Your task to perform on an android device: Go to Yahoo.com Image 0: 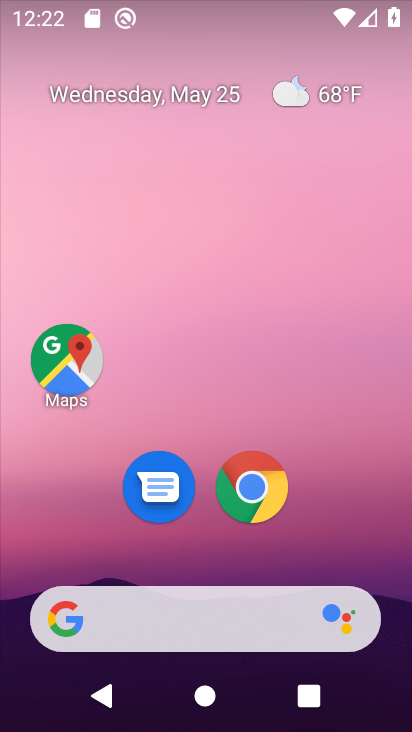
Step 0: click (250, 490)
Your task to perform on an android device: Go to Yahoo.com Image 1: 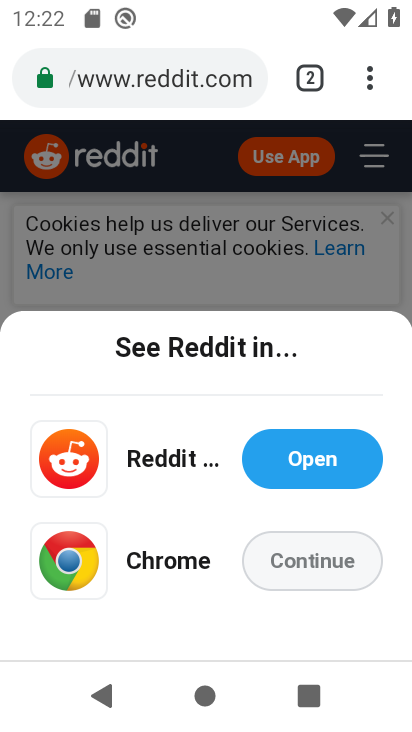
Step 1: click (302, 84)
Your task to perform on an android device: Go to Yahoo.com Image 2: 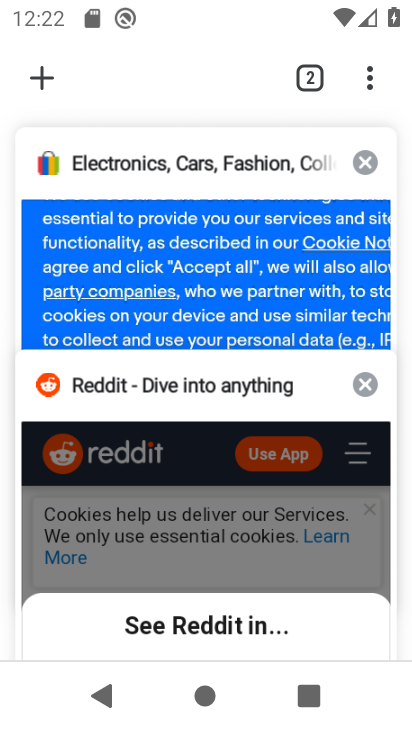
Step 2: click (34, 77)
Your task to perform on an android device: Go to Yahoo.com Image 3: 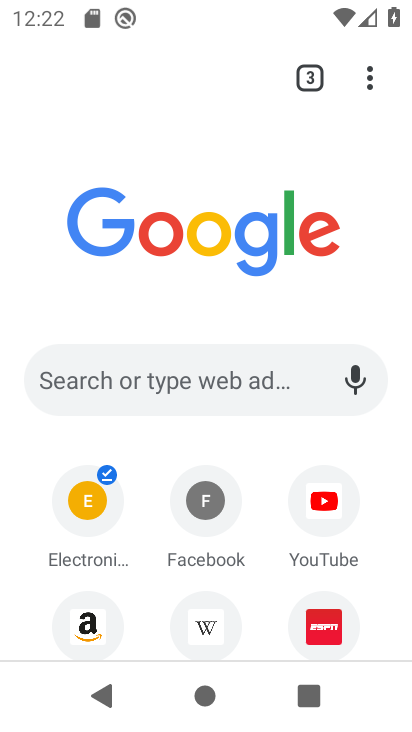
Step 3: drag from (173, 579) to (262, 218)
Your task to perform on an android device: Go to Yahoo.com Image 4: 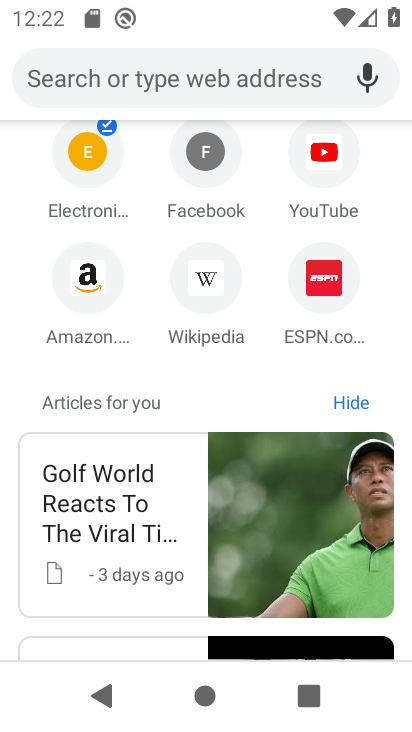
Step 4: drag from (250, 309) to (248, 545)
Your task to perform on an android device: Go to Yahoo.com Image 5: 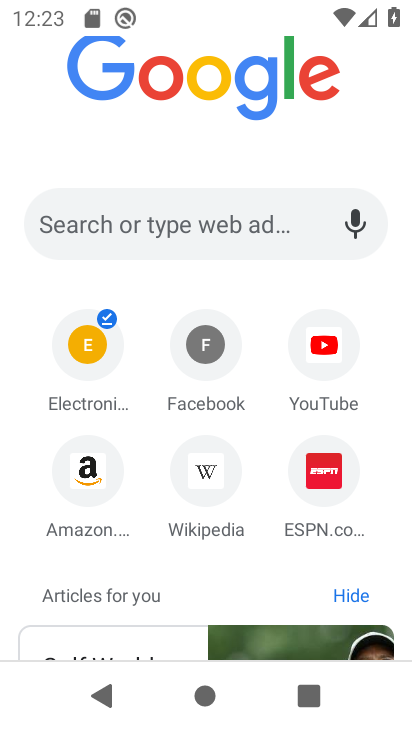
Step 5: click (143, 227)
Your task to perform on an android device: Go to Yahoo.com Image 6: 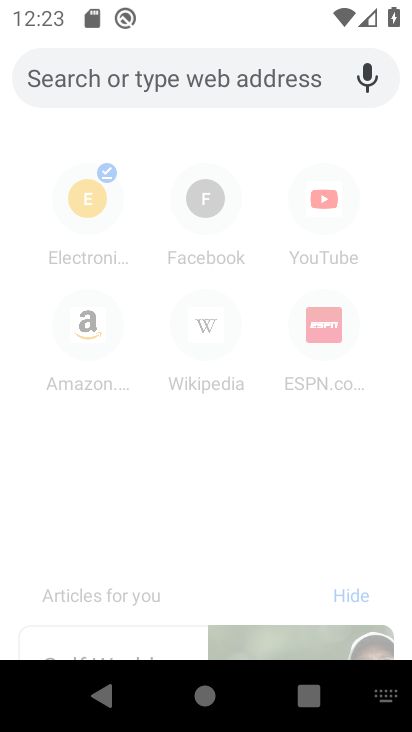
Step 6: type "yahoo"
Your task to perform on an android device: Go to Yahoo.com Image 7: 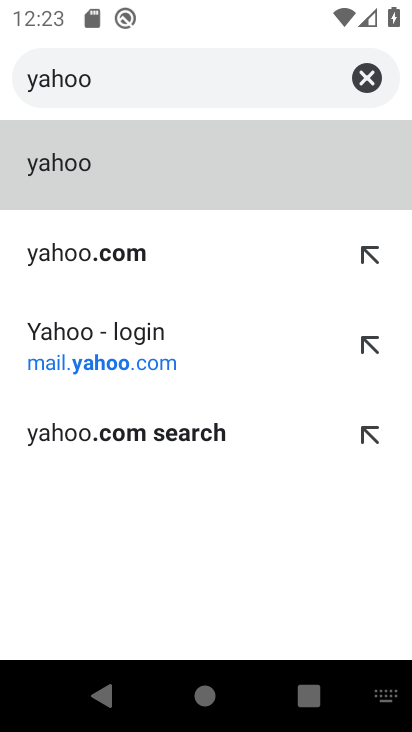
Step 7: click (145, 362)
Your task to perform on an android device: Go to Yahoo.com Image 8: 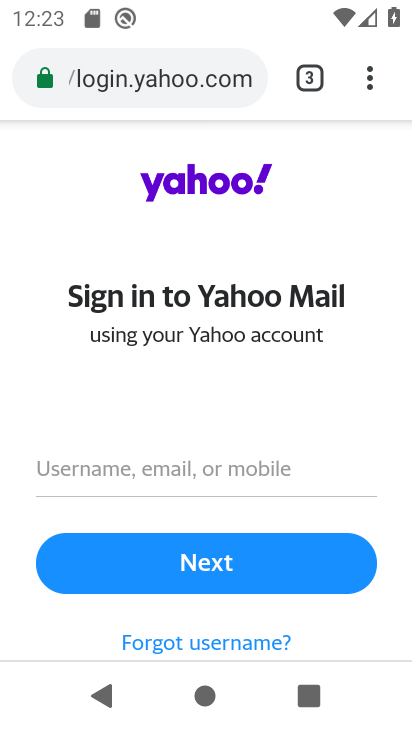
Step 8: task complete